Your task to perform on an android device: turn pop-ups off in chrome Image 0: 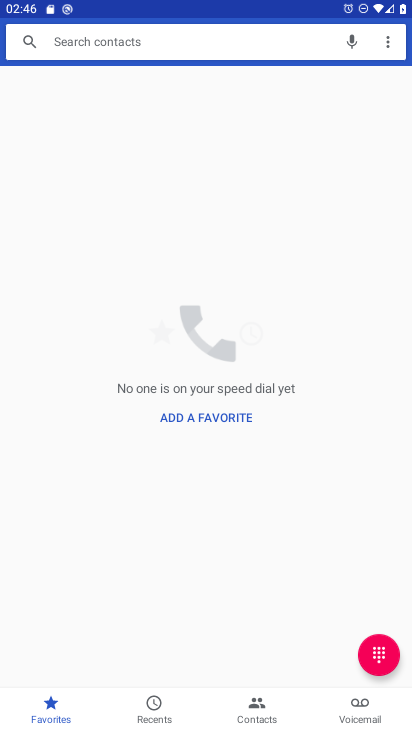
Step 0: press home button
Your task to perform on an android device: turn pop-ups off in chrome Image 1: 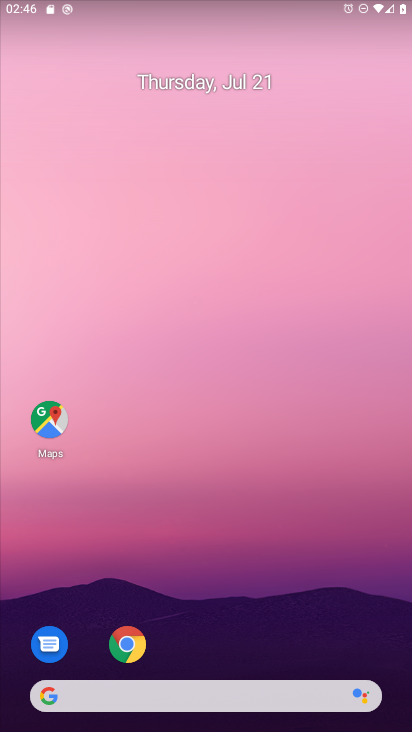
Step 1: click (130, 644)
Your task to perform on an android device: turn pop-ups off in chrome Image 2: 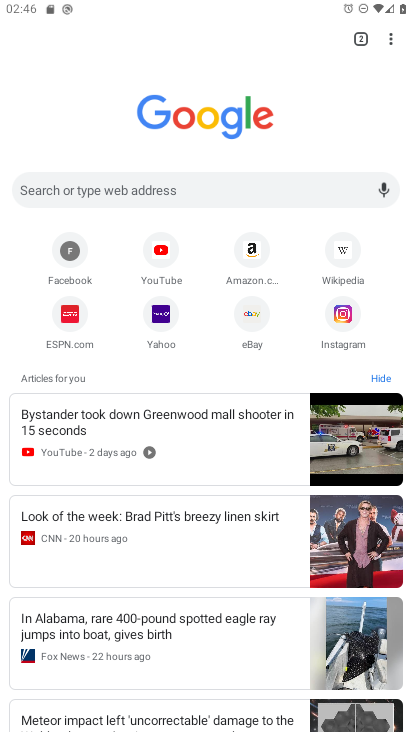
Step 2: click (389, 43)
Your task to perform on an android device: turn pop-ups off in chrome Image 3: 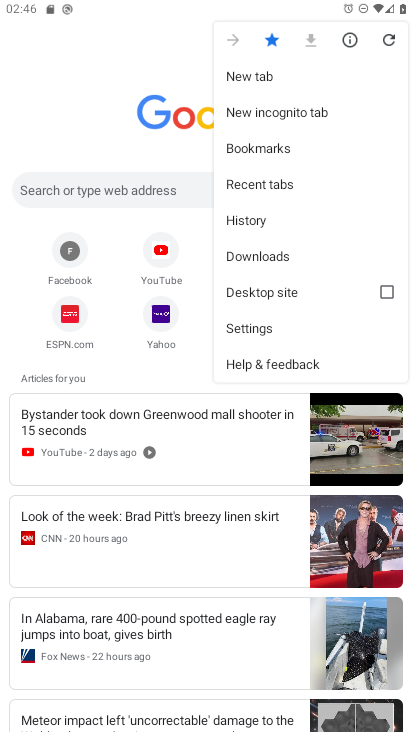
Step 3: click (245, 329)
Your task to perform on an android device: turn pop-ups off in chrome Image 4: 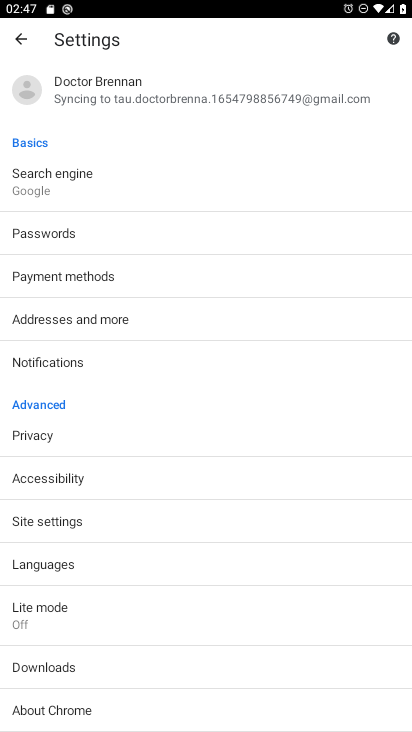
Step 4: click (49, 522)
Your task to perform on an android device: turn pop-ups off in chrome Image 5: 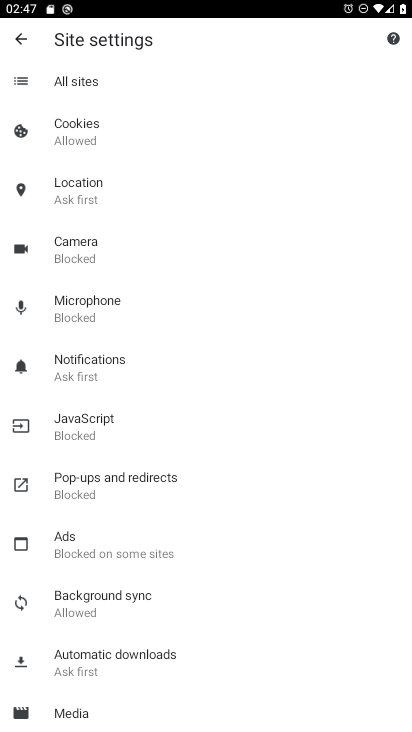
Step 5: click (90, 480)
Your task to perform on an android device: turn pop-ups off in chrome Image 6: 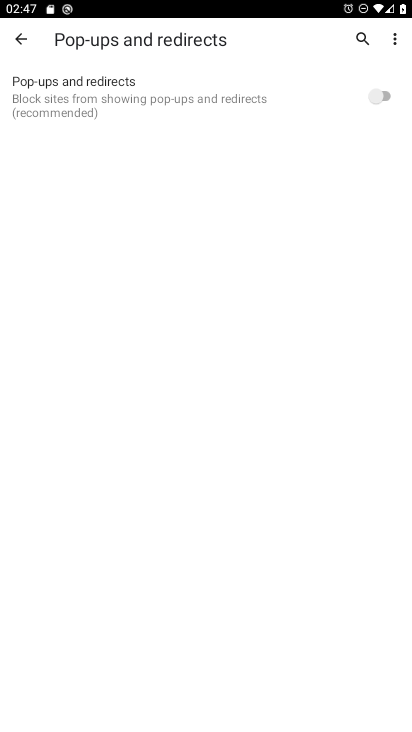
Step 6: task complete